Your task to perform on an android device: turn off data saver in the chrome app Image 0: 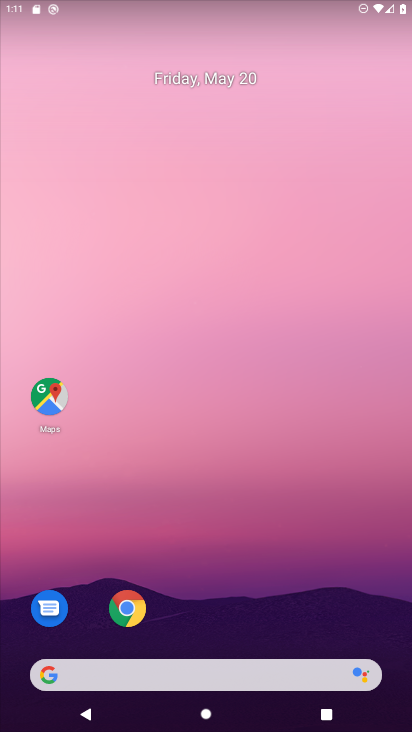
Step 0: press home button
Your task to perform on an android device: turn off data saver in the chrome app Image 1: 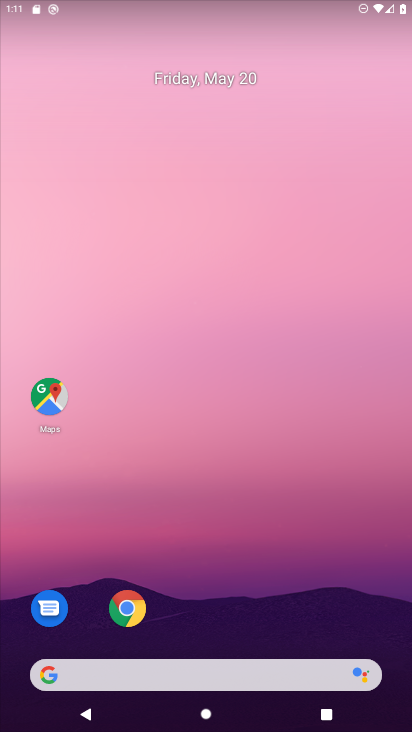
Step 1: drag from (202, 622) to (214, 184)
Your task to perform on an android device: turn off data saver in the chrome app Image 2: 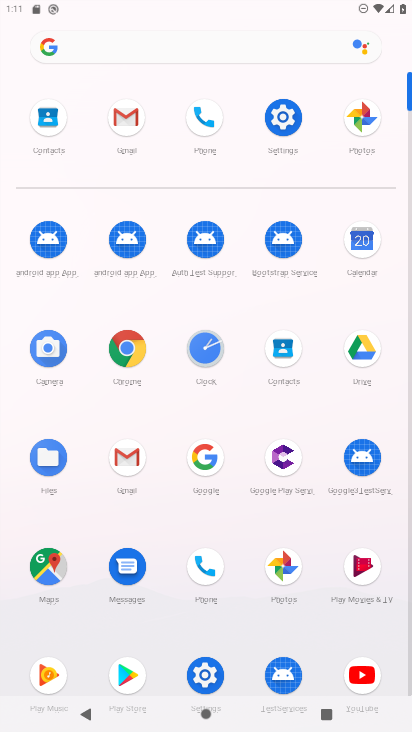
Step 2: click (128, 333)
Your task to perform on an android device: turn off data saver in the chrome app Image 3: 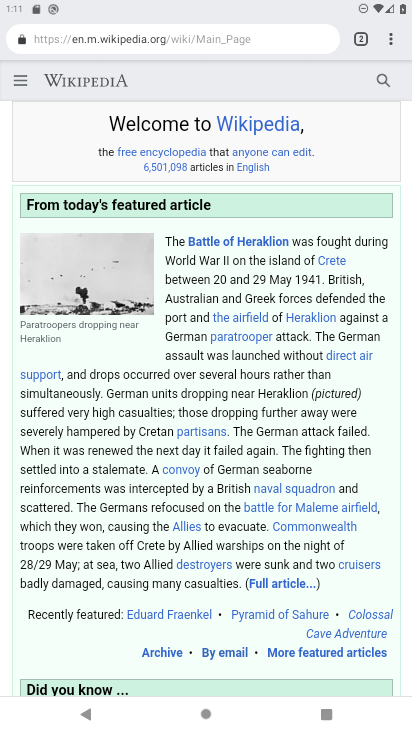
Step 3: drag from (385, 41) to (274, 472)
Your task to perform on an android device: turn off data saver in the chrome app Image 4: 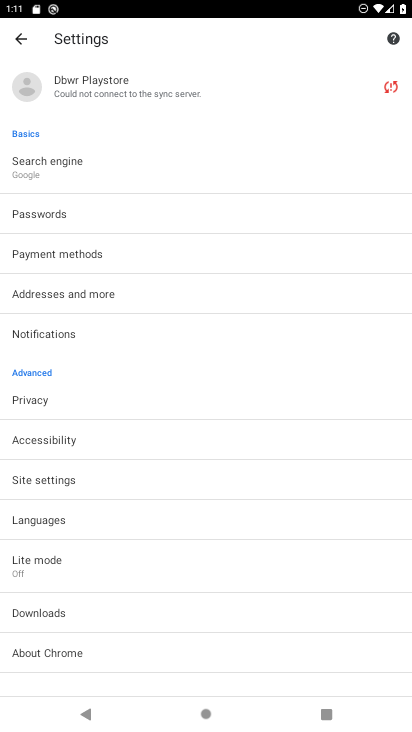
Step 4: click (78, 567)
Your task to perform on an android device: turn off data saver in the chrome app Image 5: 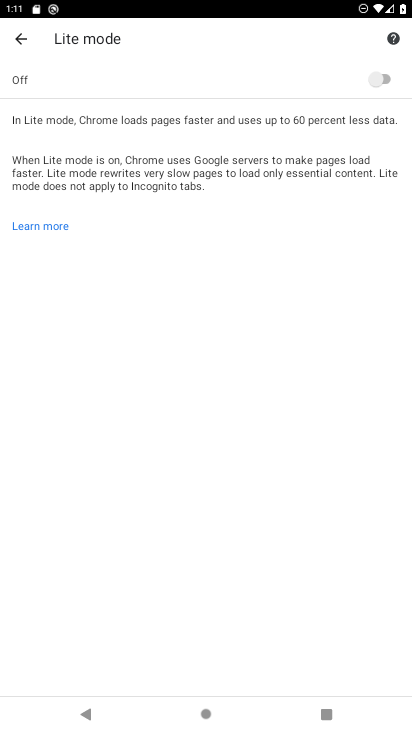
Step 5: task complete